Your task to perform on an android device: change the clock display to digital Image 0: 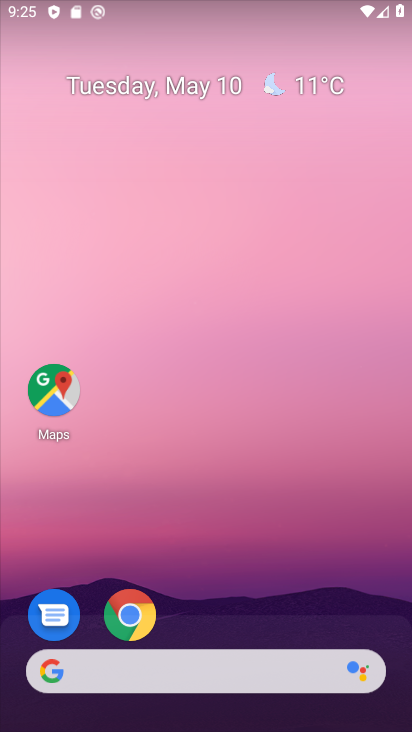
Step 0: drag from (274, 585) to (323, 221)
Your task to perform on an android device: change the clock display to digital Image 1: 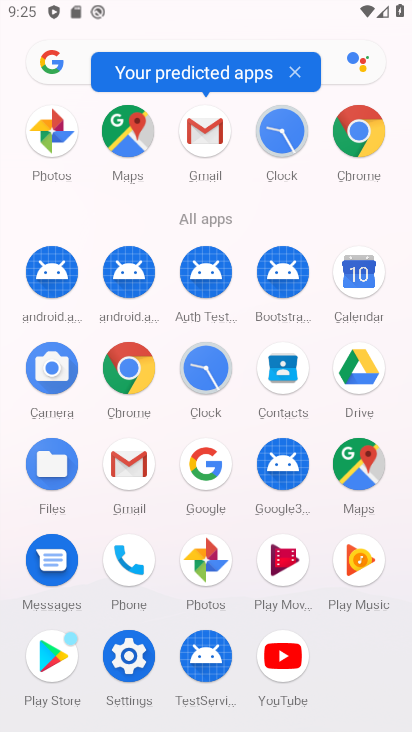
Step 1: click (280, 138)
Your task to perform on an android device: change the clock display to digital Image 2: 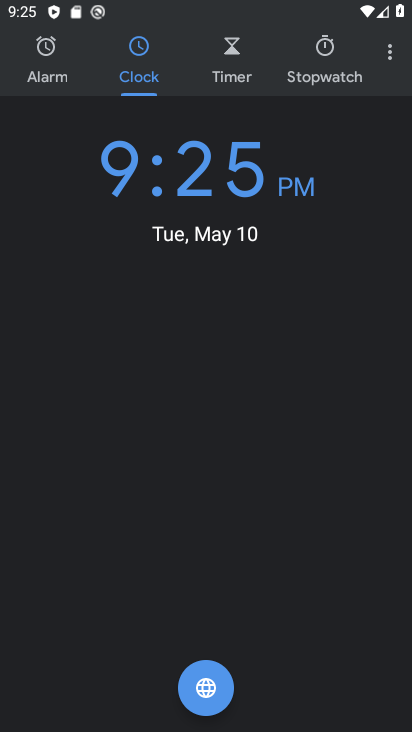
Step 2: click (388, 50)
Your task to perform on an android device: change the clock display to digital Image 3: 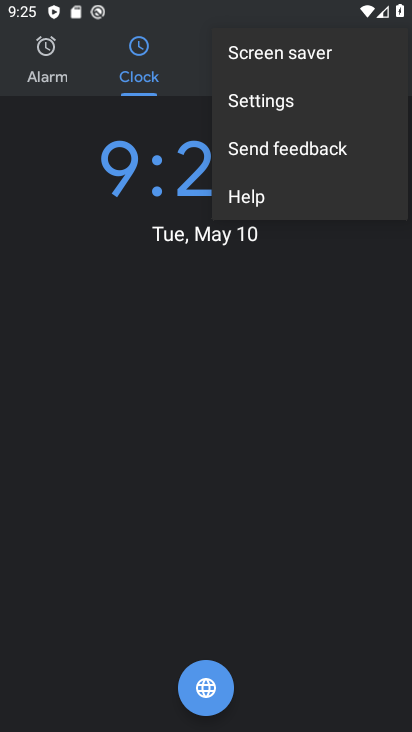
Step 3: click (304, 106)
Your task to perform on an android device: change the clock display to digital Image 4: 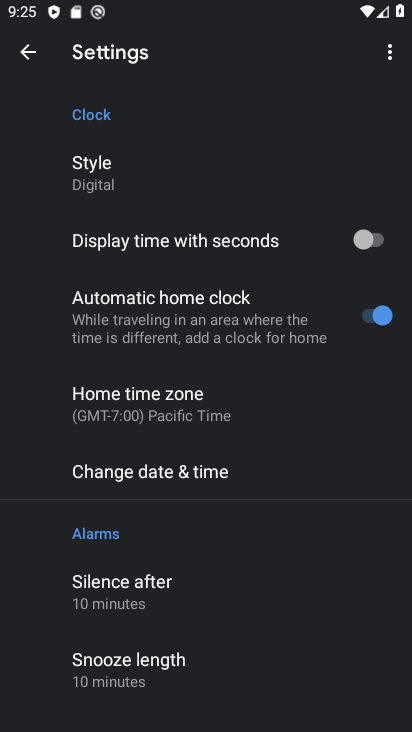
Step 4: click (151, 186)
Your task to perform on an android device: change the clock display to digital Image 5: 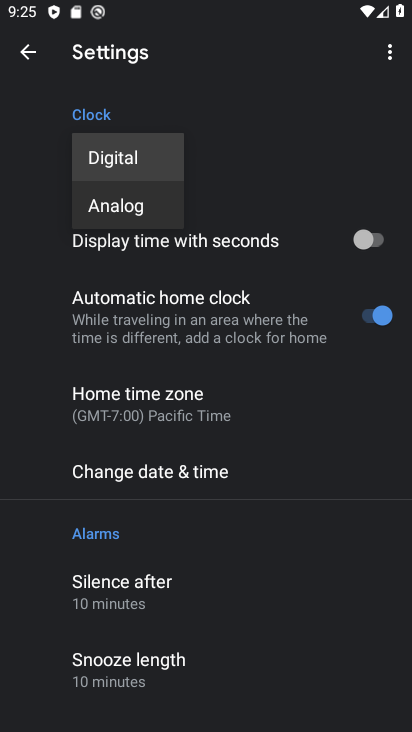
Step 5: task complete